Your task to perform on an android device: Go to wifi settings Image 0: 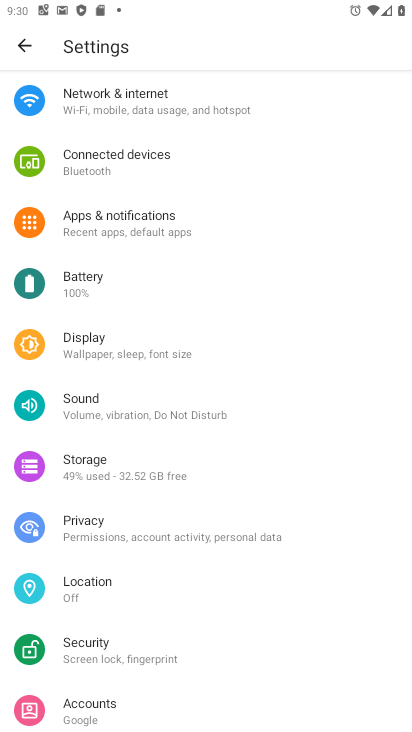
Step 0: press home button
Your task to perform on an android device: Go to wifi settings Image 1: 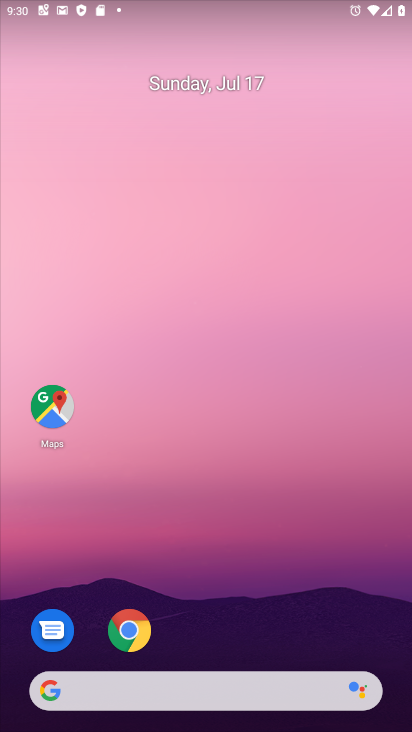
Step 1: drag from (330, 623) to (331, 54)
Your task to perform on an android device: Go to wifi settings Image 2: 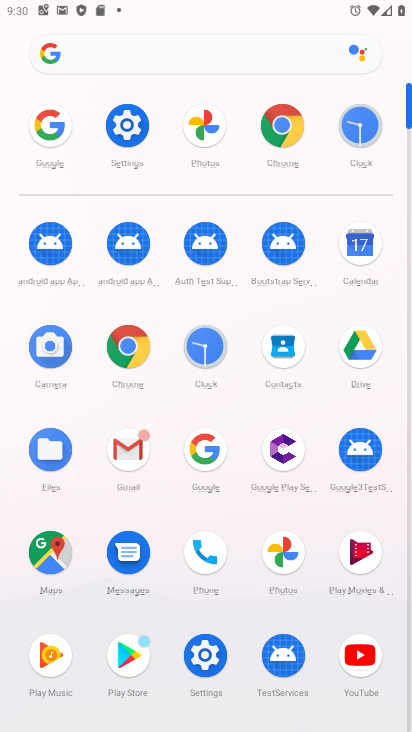
Step 2: click (126, 136)
Your task to perform on an android device: Go to wifi settings Image 3: 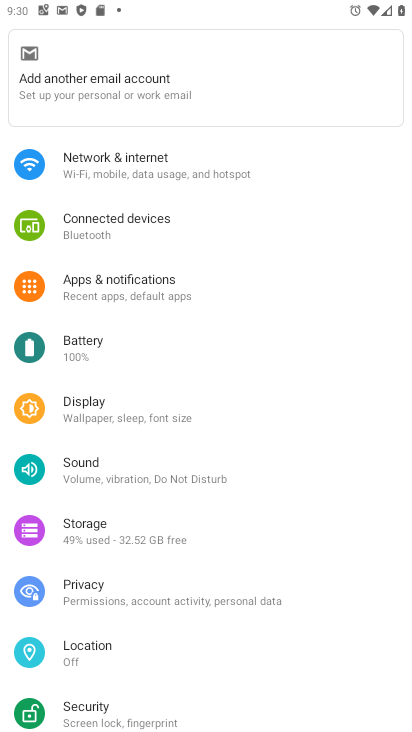
Step 3: drag from (320, 388) to (327, 319)
Your task to perform on an android device: Go to wifi settings Image 4: 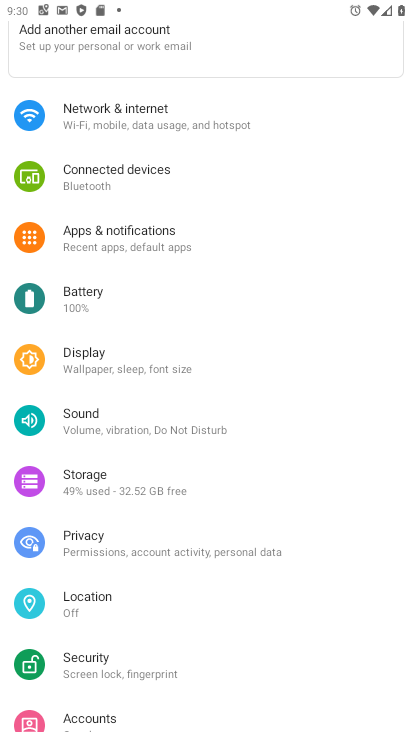
Step 4: drag from (336, 406) to (339, 314)
Your task to perform on an android device: Go to wifi settings Image 5: 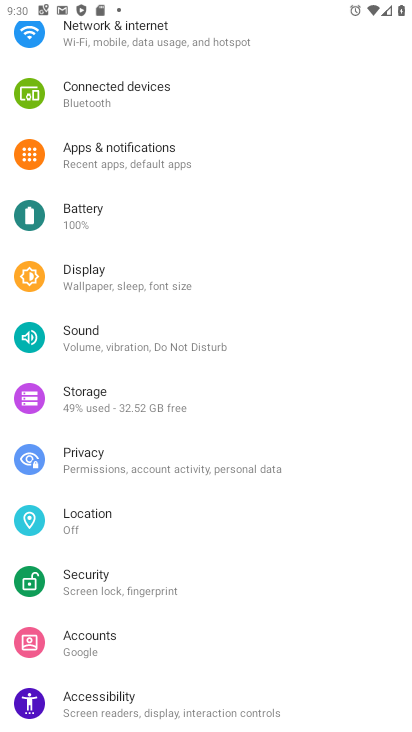
Step 5: drag from (333, 403) to (337, 305)
Your task to perform on an android device: Go to wifi settings Image 6: 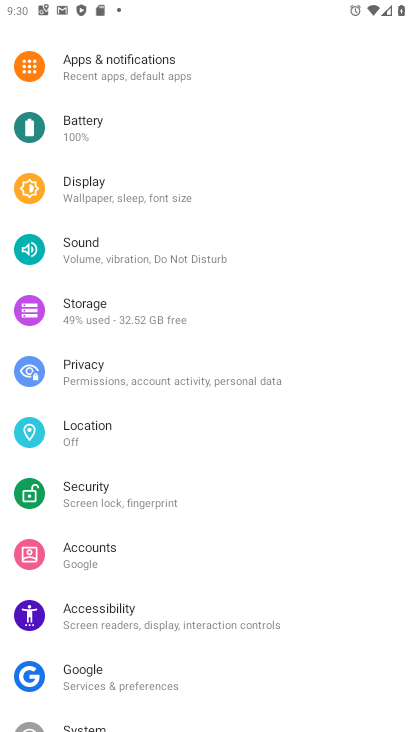
Step 6: drag from (323, 401) to (323, 325)
Your task to perform on an android device: Go to wifi settings Image 7: 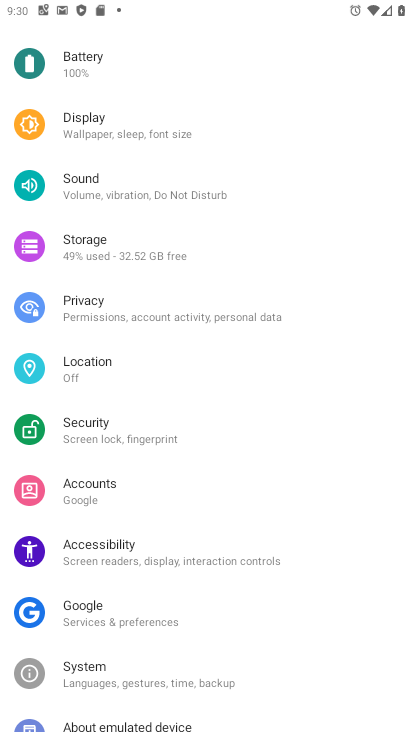
Step 7: drag from (317, 467) to (328, 397)
Your task to perform on an android device: Go to wifi settings Image 8: 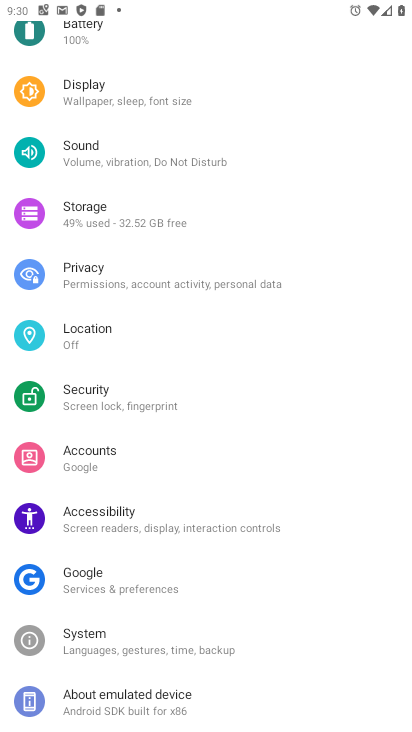
Step 8: drag from (329, 286) to (336, 383)
Your task to perform on an android device: Go to wifi settings Image 9: 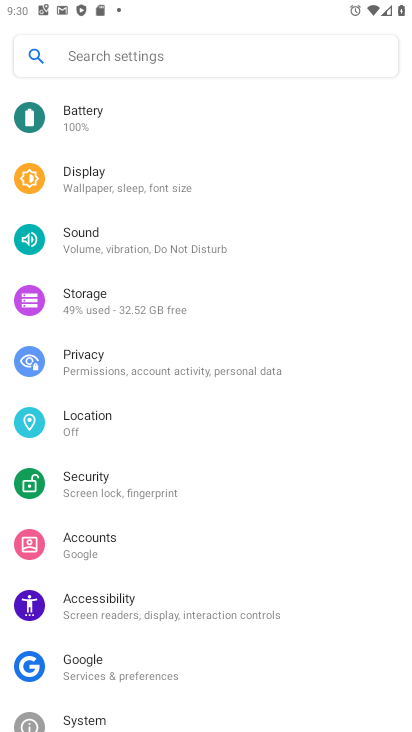
Step 9: drag from (349, 268) to (350, 382)
Your task to perform on an android device: Go to wifi settings Image 10: 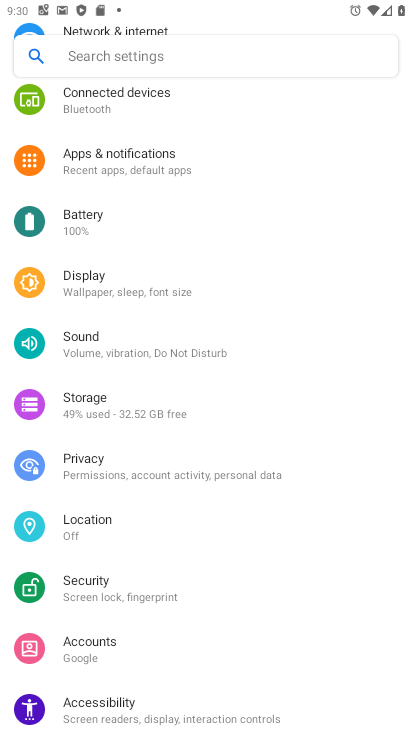
Step 10: drag from (350, 269) to (345, 375)
Your task to perform on an android device: Go to wifi settings Image 11: 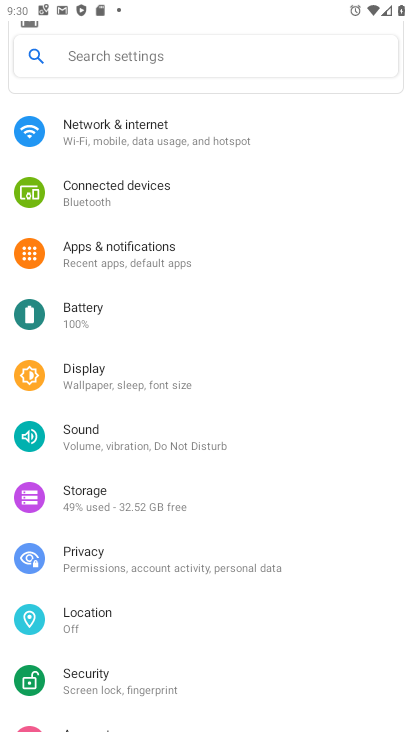
Step 11: drag from (340, 259) to (334, 405)
Your task to perform on an android device: Go to wifi settings Image 12: 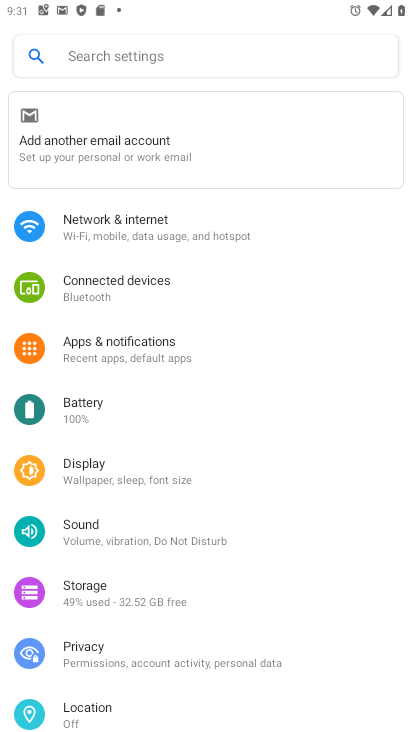
Step 12: drag from (332, 312) to (333, 407)
Your task to perform on an android device: Go to wifi settings Image 13: 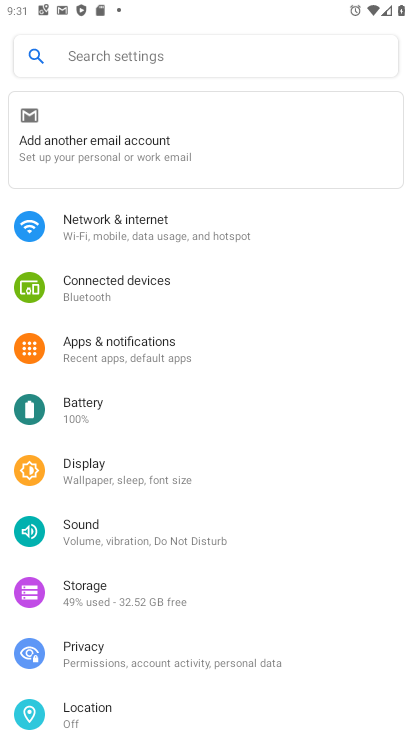
Step 13: click (246, 219)
Your task to perform on an android device: Go to wifi settings Image 14: 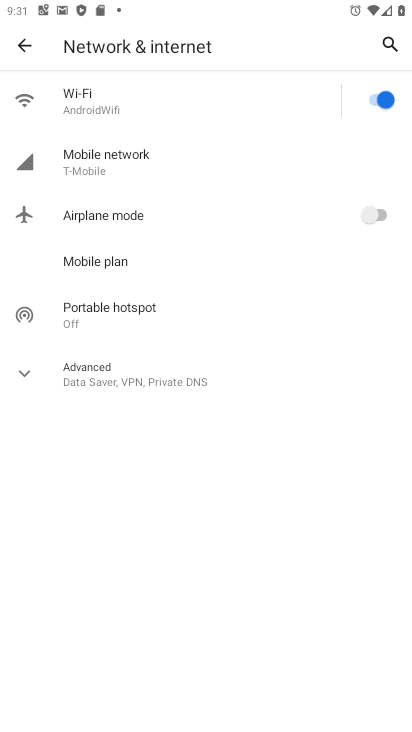
Step 14: click (170, 108)
Your task to perform on an android device: Go to wifi settings Image 15: 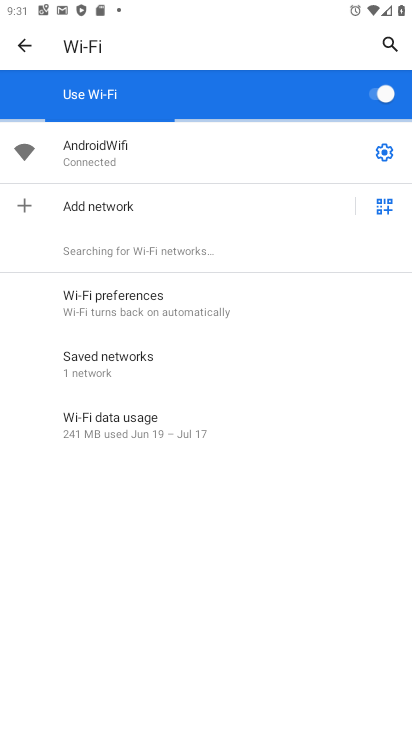
Step 15: task complete